Your task to perform on an android device: Open Reddit.com Image 0: 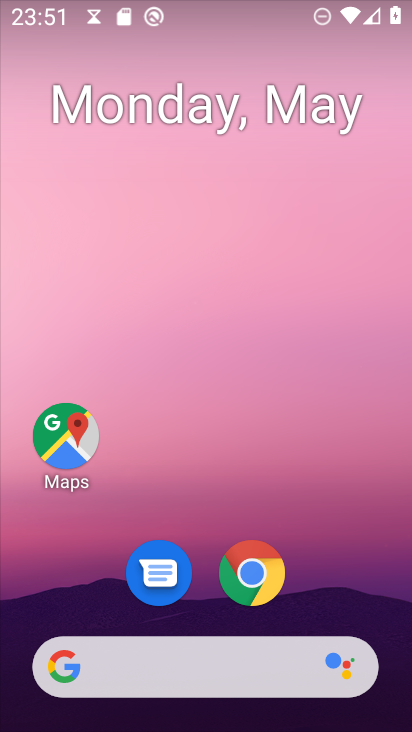
Step 0: click (261, 571)
Your task to perform on an android device: Open Reddit.com Image 1: 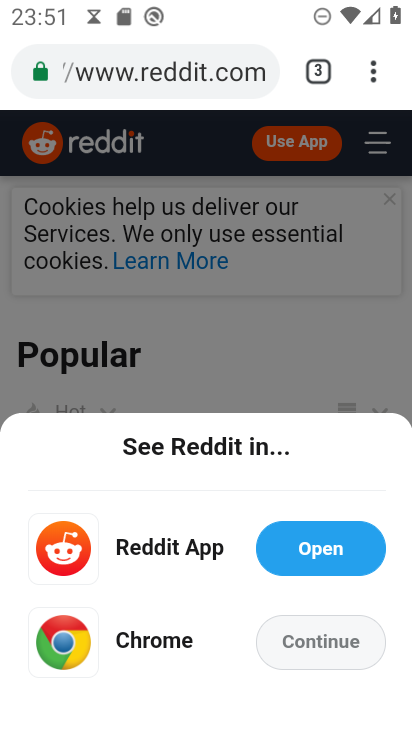
Step 1: task complete